Your task to perform on an android device: Go to sound settings Image 0: 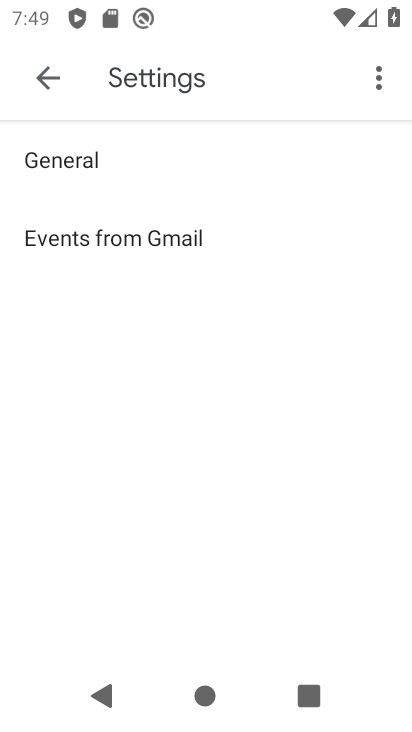
Step 0: press home button
Your task to perform on an android device: Go to sound settings Image 1: 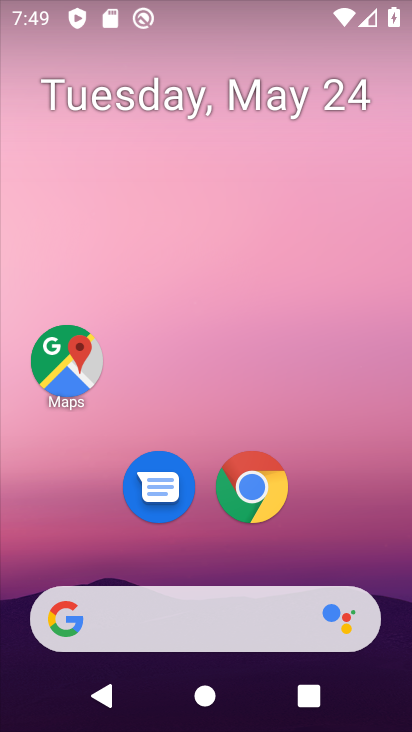
Step 1: drag from (12, 573) to (321, 115)
Your task to perform on an android device: Go to sound settings Image 2: 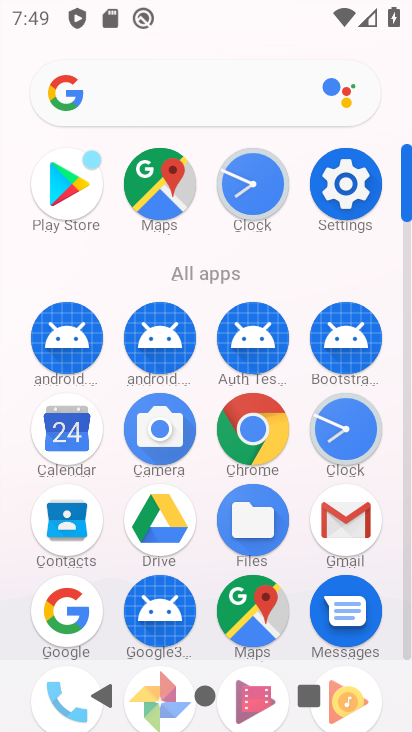
Step 2: click (362, 176)
Your task to perform on an android device: Go to sound settings Image 3: 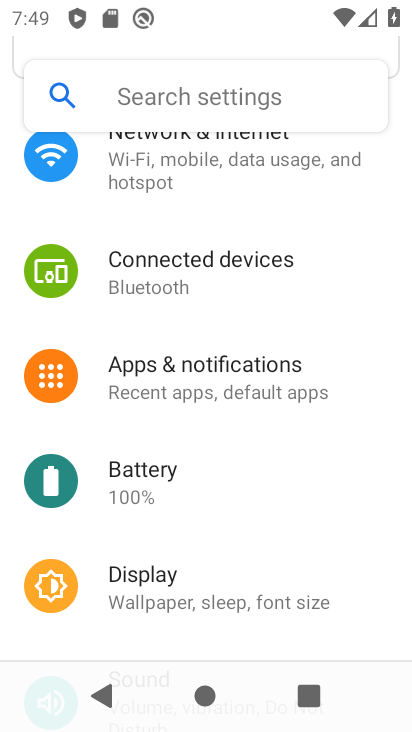
Step 3: drag from (4, 634) to (251, 193)
Your task to perform on an android device: Go to sound settings Image 4: 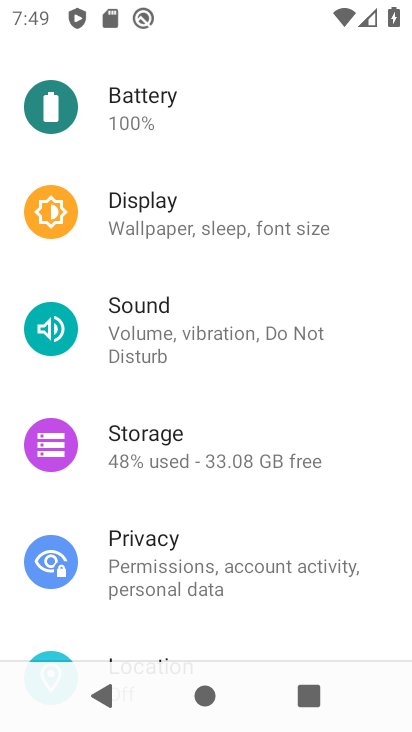
Step 4: click (162, 330)
Your task to perform on an android device: Go to sound settings Image 5: 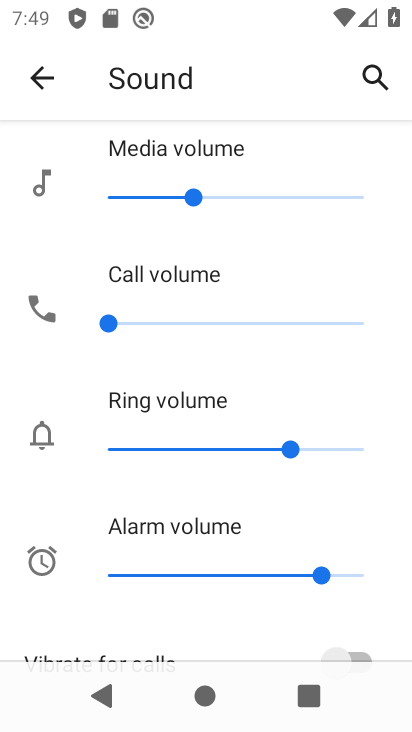
Step 5: task complete